Your task to perform on an android device: delete a single message in the gmail app Image 0: 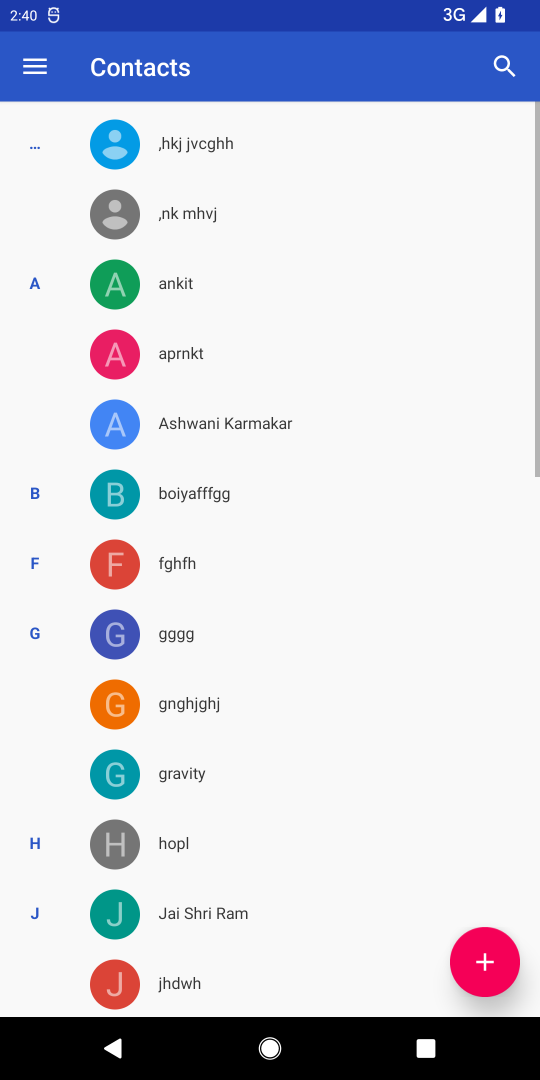
Step 0: press home button
Your task to perform on an android device: delete a single message in the gmail app Image 1: 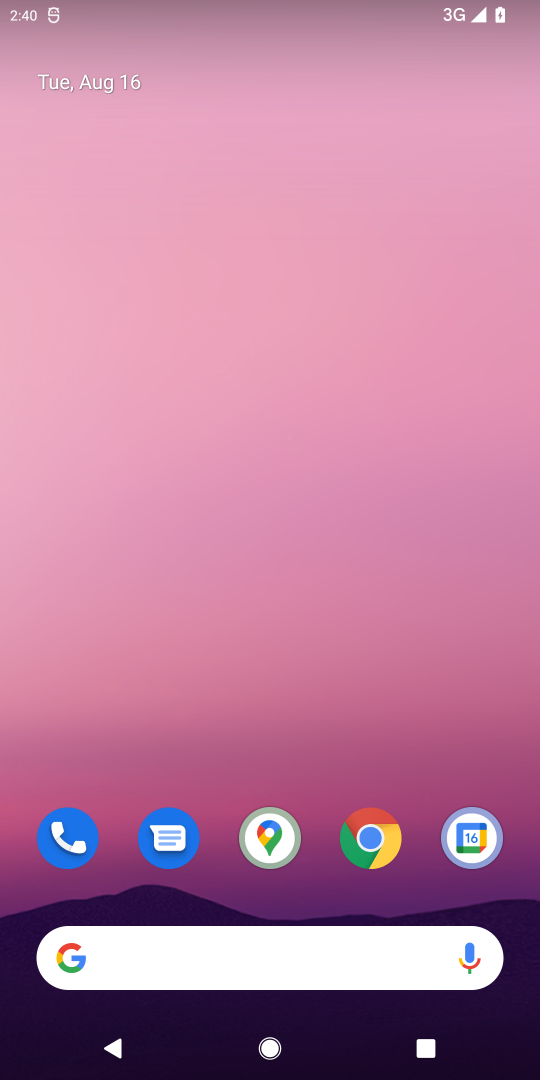
Step 1: drag from (298, 723) to (276, 148)
Your task to perform on an android device: delete a single message in the gmail app Image 2: 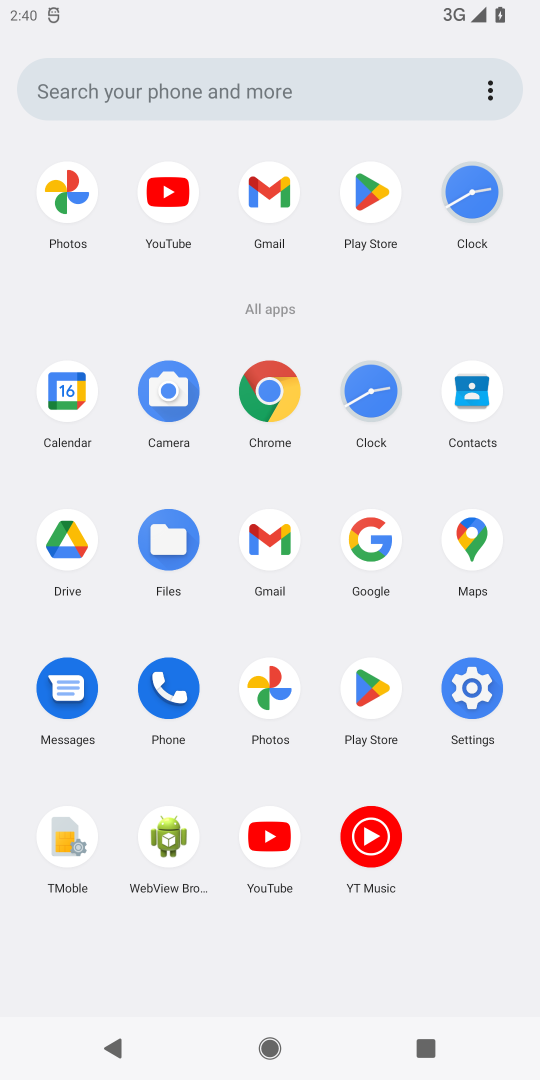
Step 2: click (263, 542)
Your task to perform on an android device: delete a single message in the gmail app Image 3: 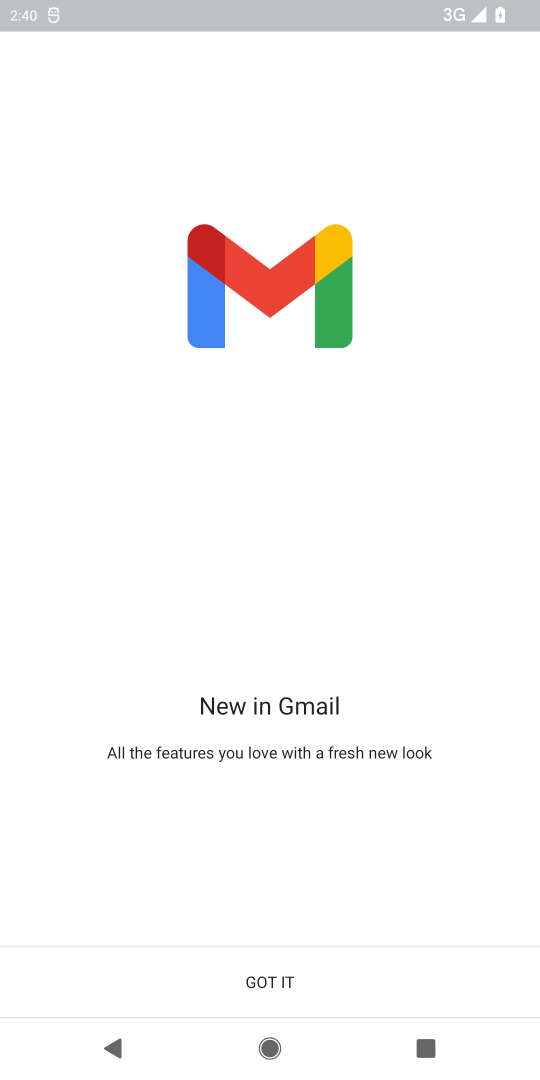
Step 3: click (294, 987)
Your task to perform on an android device: delete a single message in the gmail app Image 4: 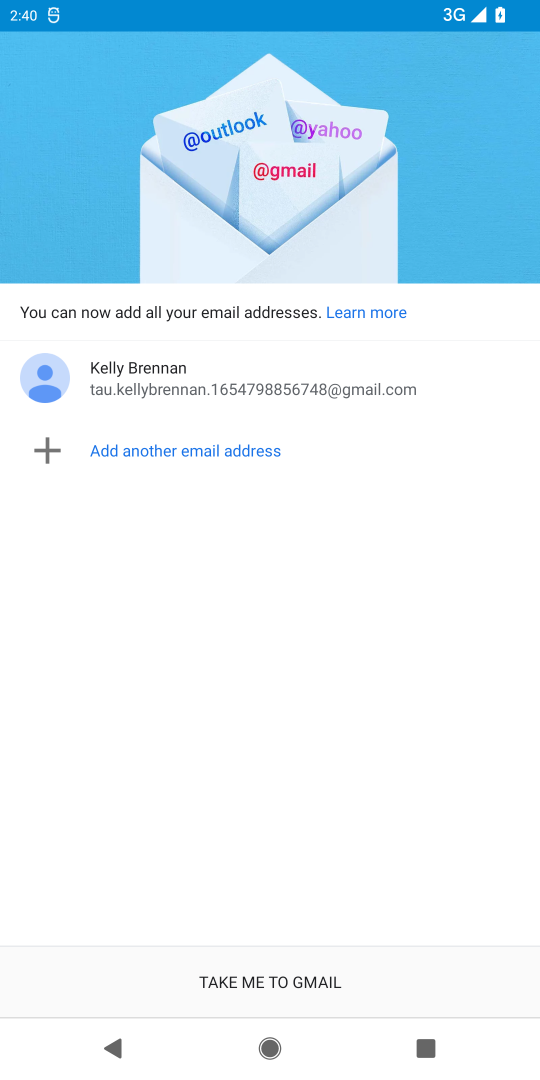
Step 4: click (294, 987)
Your task to perform on an android device: delete a single message in the gmail app Image 5: 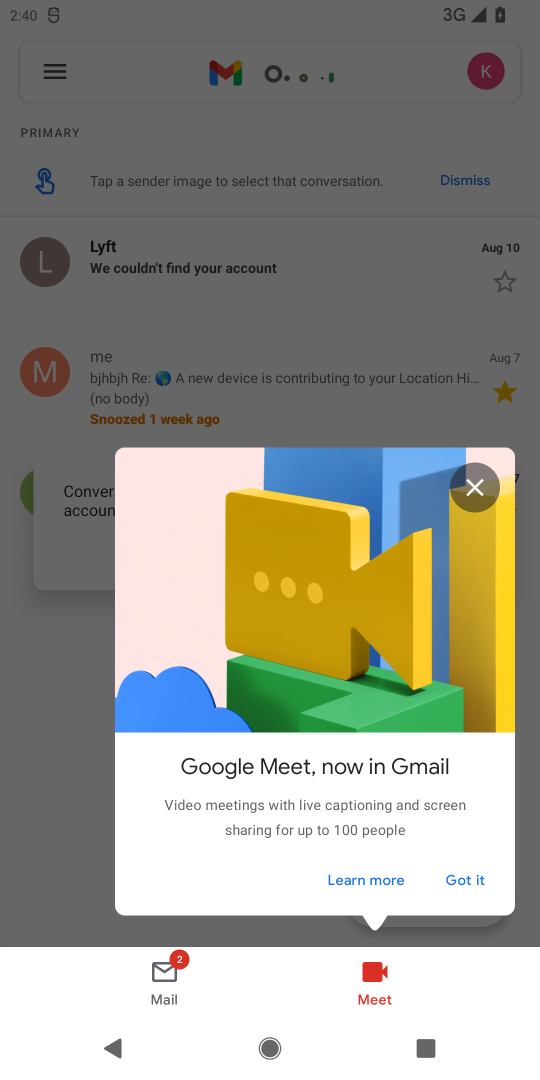
Step 5: click (476, 482)
Your task to perform on an android device: delete a single message in the gmail app Image 6: 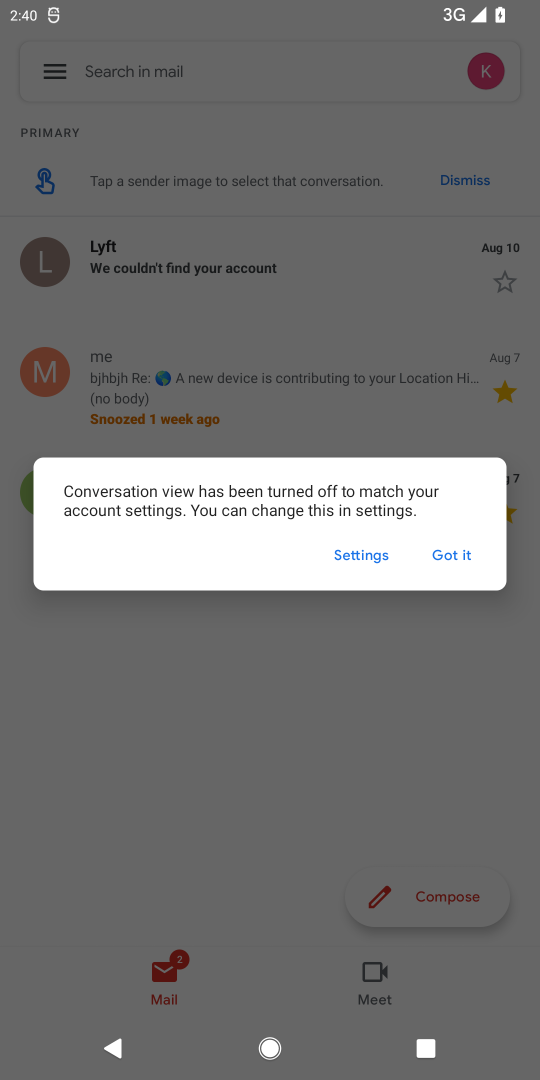
Step 6: click (448, 550)
Your task to perform on an android device: delete a single message in the gmail app Image 7: 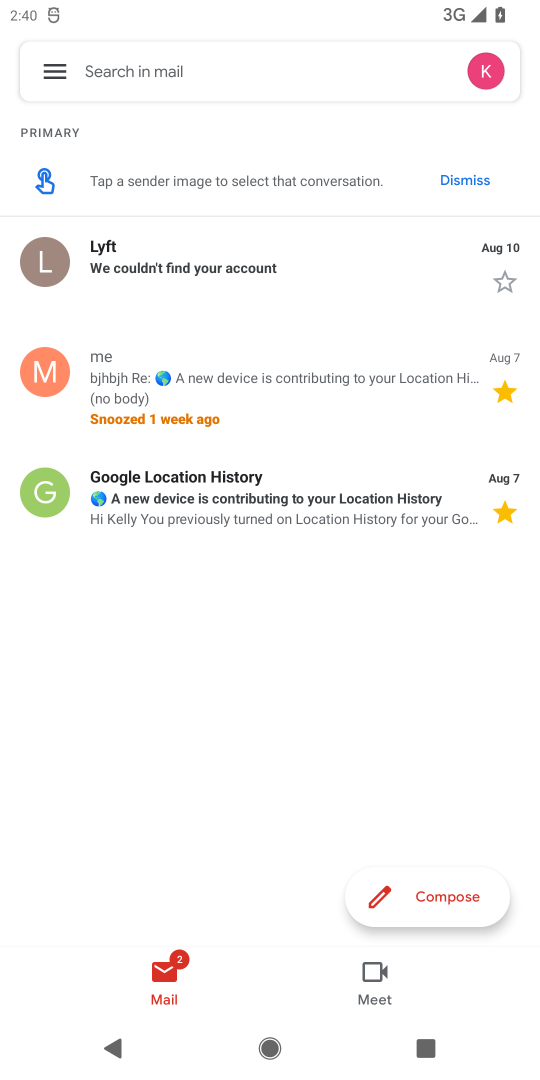
Step 7: click (166, 234)
Your task to perform on an android device: delete a single message in the gmail app Image 8: 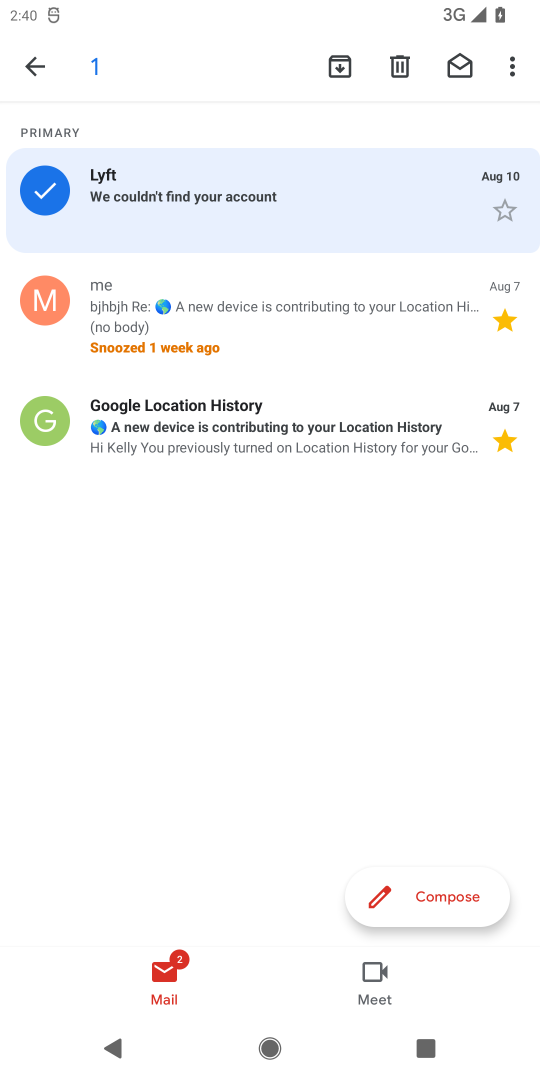
Step 8: click (402, 59)
Your task to perform on an android device: delete a single message in the gmail app Image 9: 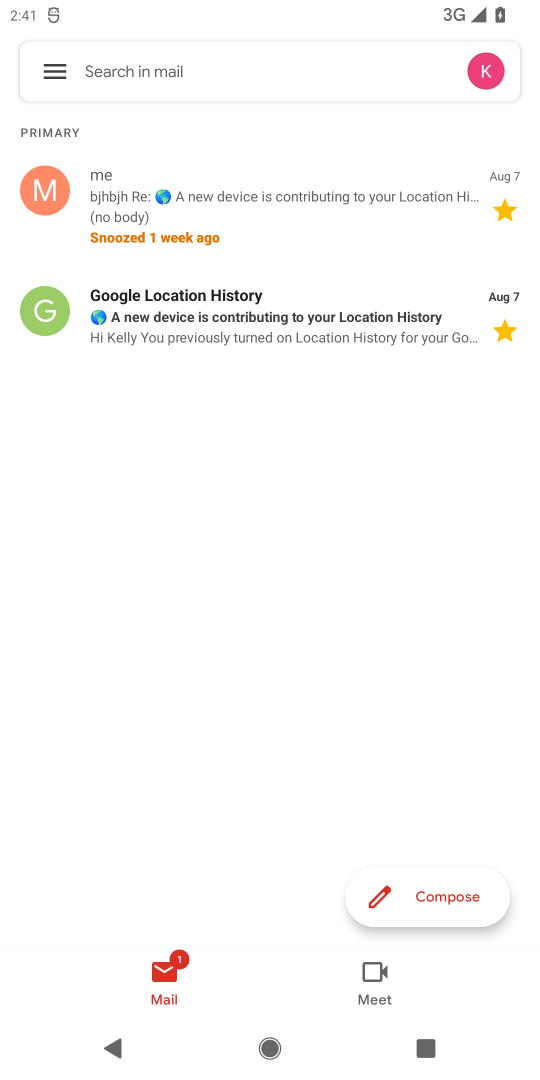
Step 9: task complete